Your task to perform on an android device: see sites visited before in the chrome app Image 0: 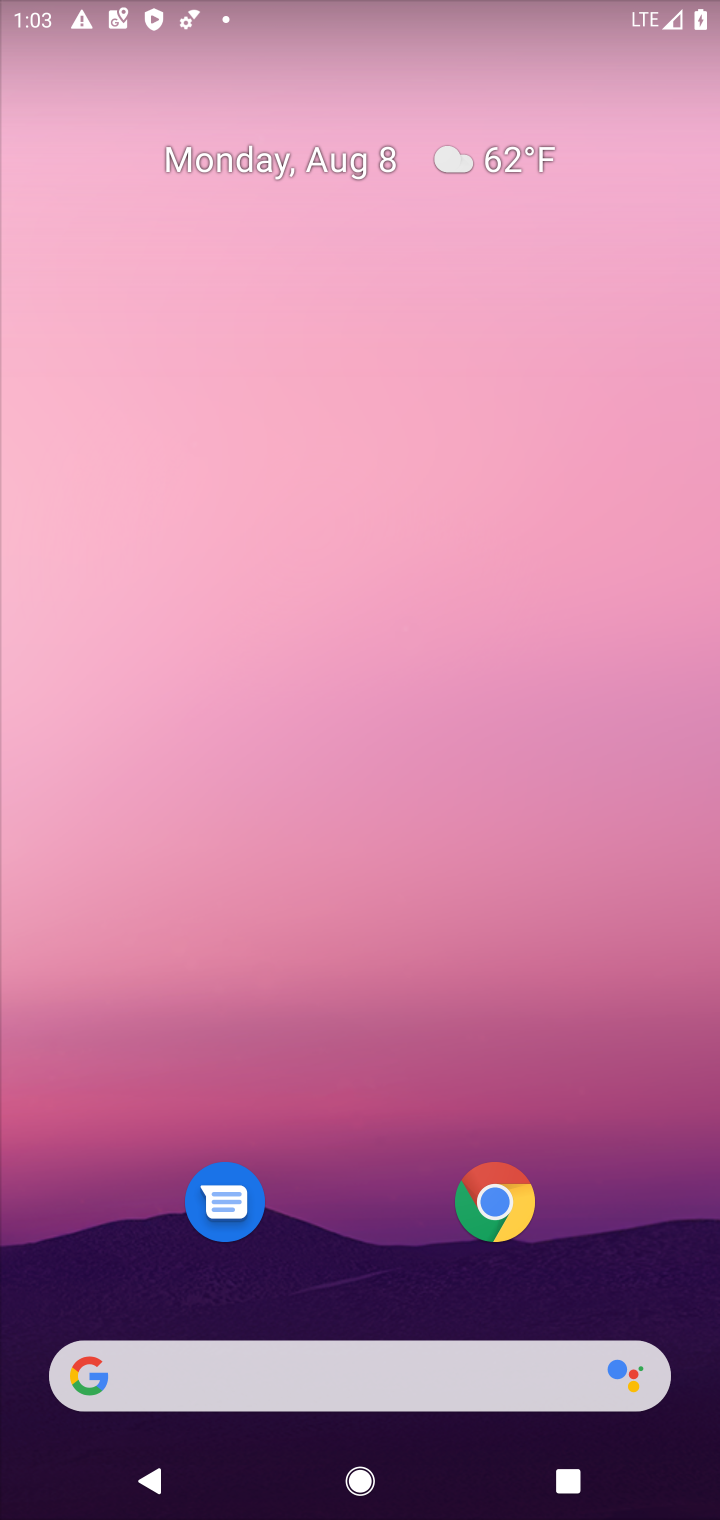
Step 0: click (491, 1201)
Your task to perform on an android device: see sites visited before in the chrome app Image 1: 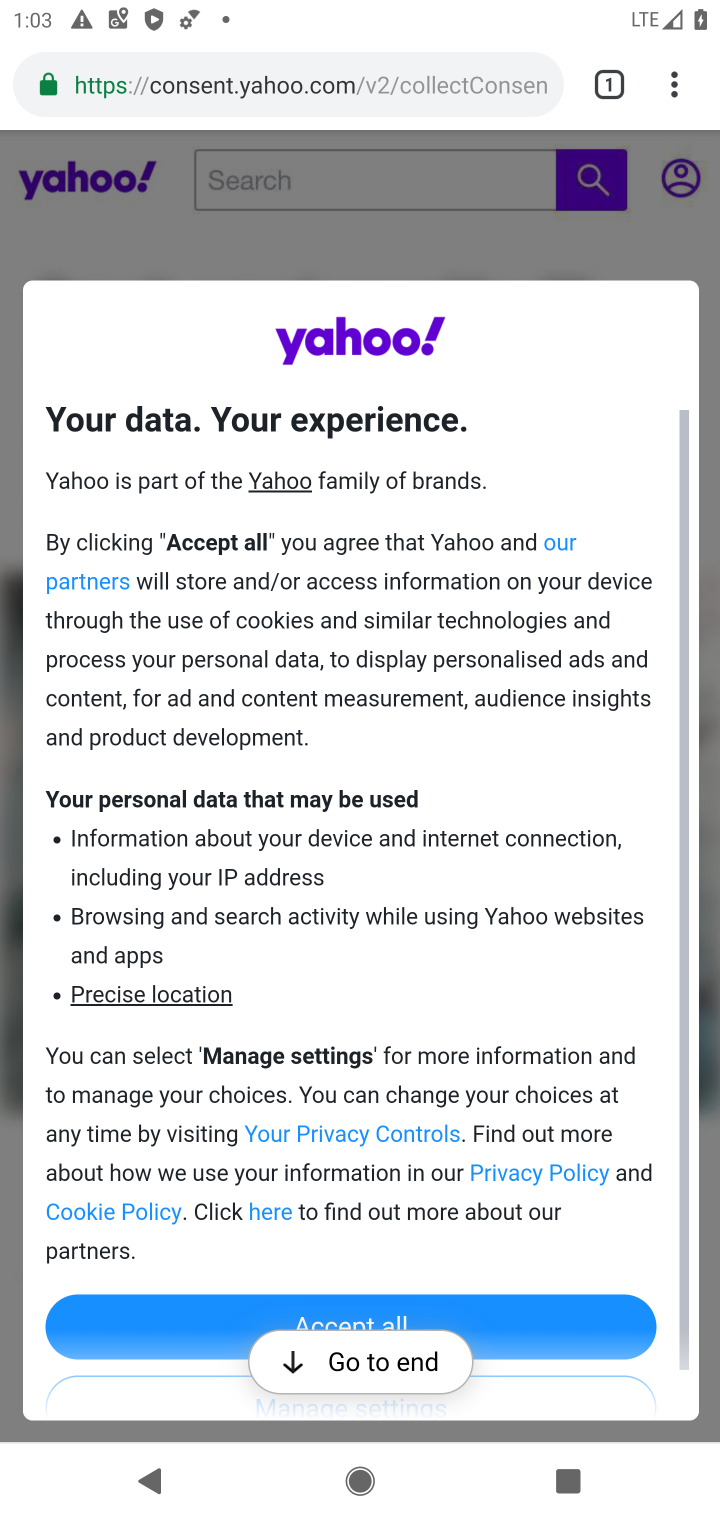
Step 1: click (668, 84)
Your task to perform on an android device: see sites visited before in the chrome app Image 2: 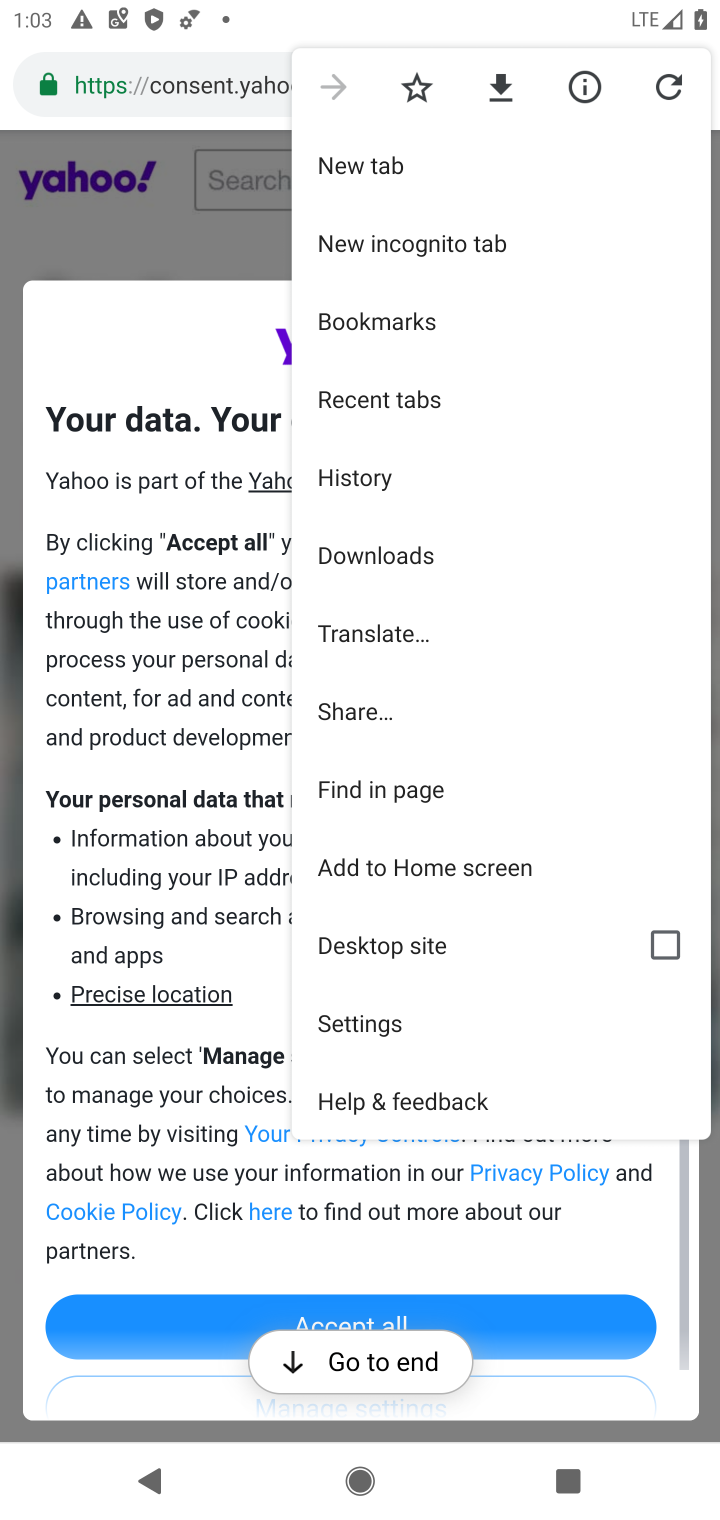
Step 2: click (357, 482)
Your task to perform on an android device: see sites visited before in the chrome app Image 3: 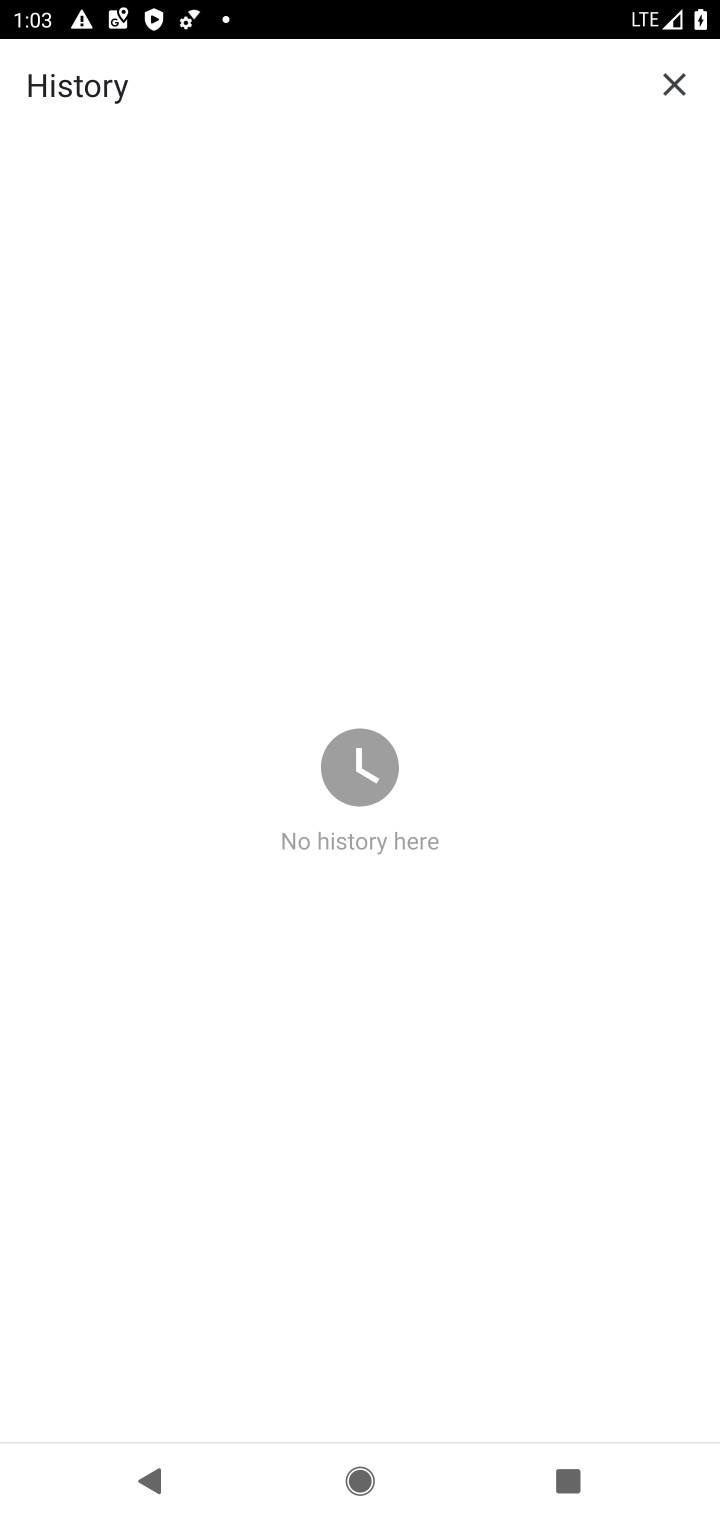
Step 3: task complete